Your task to perform on an android device: turn on location history Image 0: 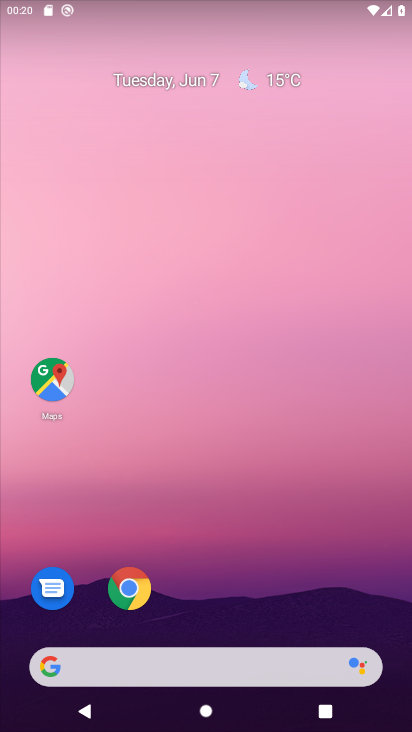
Step 0: drag from (235, 604) to (226, 242)
Your task to perform on an android device: turn on location history Image 1: 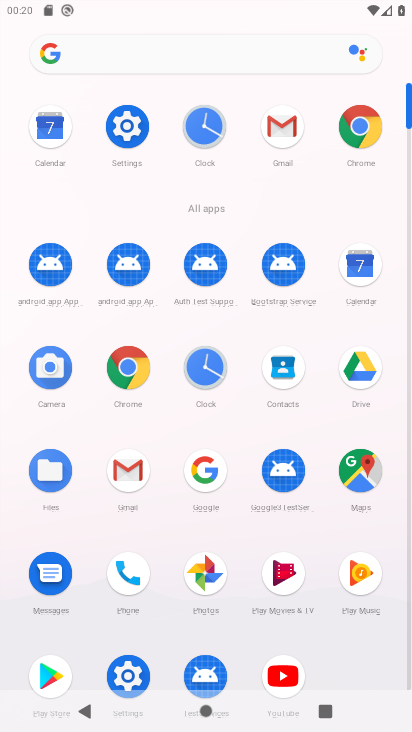
Step 1: click (366, 467)
Your task to perform on an android device: turn on location history Image 2: 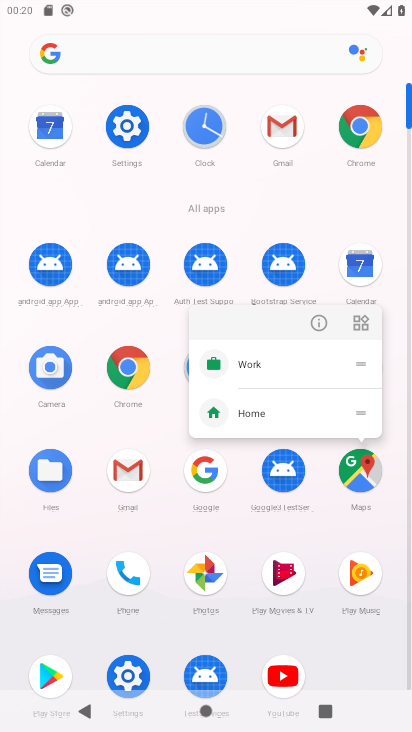
Step 2: click (120, 121)
Your task to perform on an android device: turn on location history Image 3: 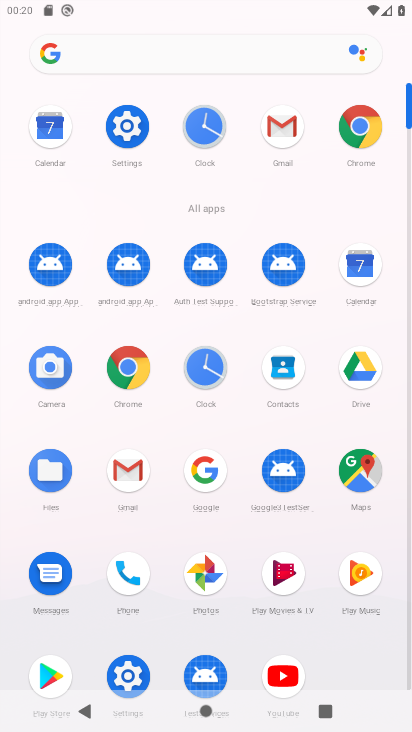
Step 3: click (119, 122)
Your task to perform on an android device: turn on location history Image 4: 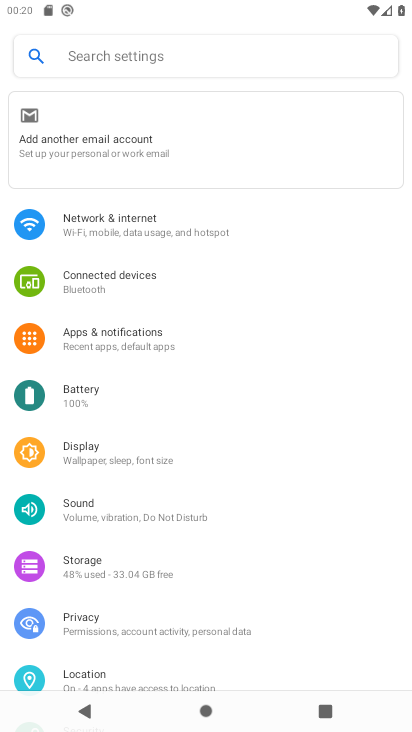
Step 4: drag from (172, 632) to (191, 412)
Your task to perform on an android device: turn on location history Image 5: 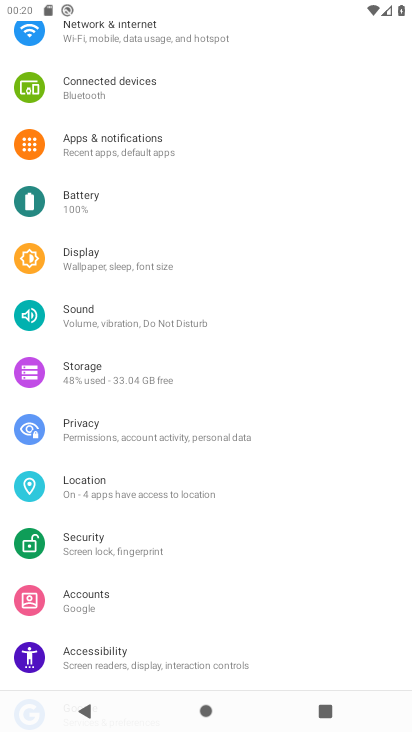
Step 5: click (118, 594)
Your task to perform on an android device: turn on location history Image 6: 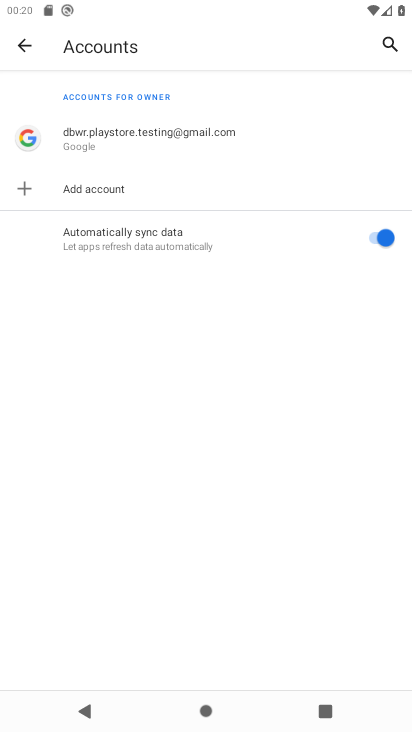
Step 6: click (28, 40)
Your task to perform on an android device: turn on location history Image 7: 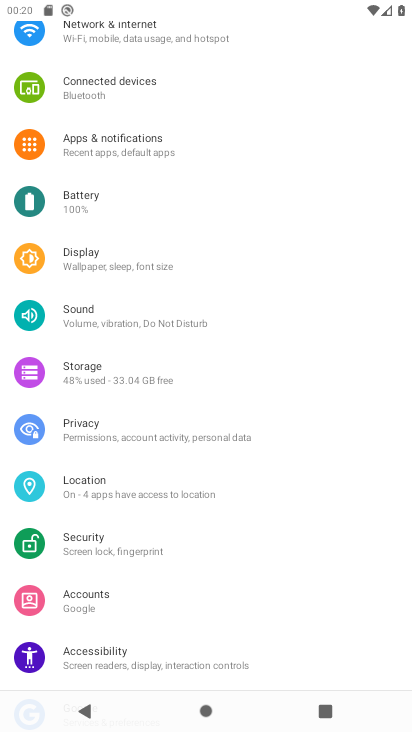
Step 7: click (105, 489)
Your task to perform on an android device: turn on location history Image 8: 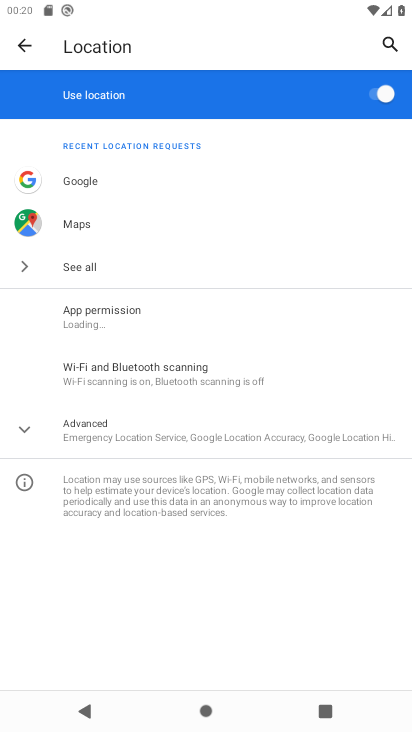
Step 8: click (158, 427)
Your task to perform on an android device: turn on location history Image 9: 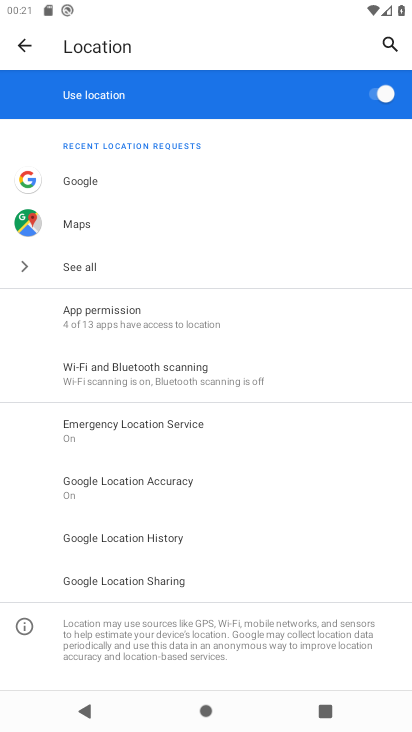
Step 9: click (119, 539)
Your task to perform on an android device: turn on location history Image 10: 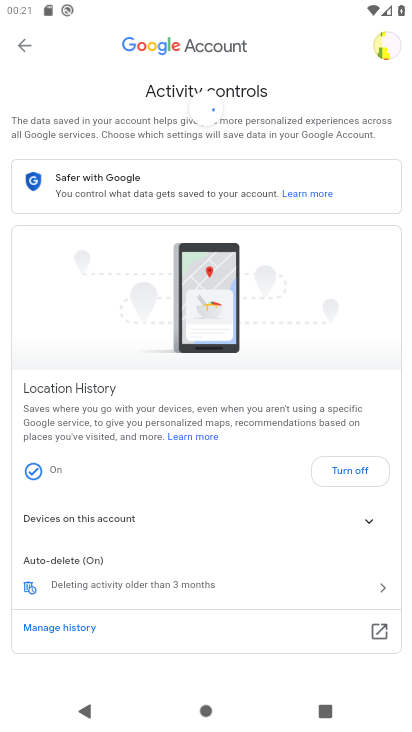
Step 10: click (351, 472)
Your task to perform on an android device: turn on location history Image 11: 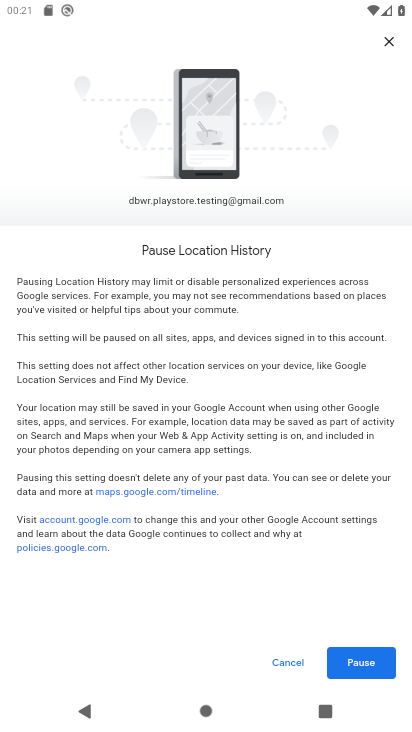
Step 11: task complete